Your task to perform on an android device: Go to battery settings Image 0: 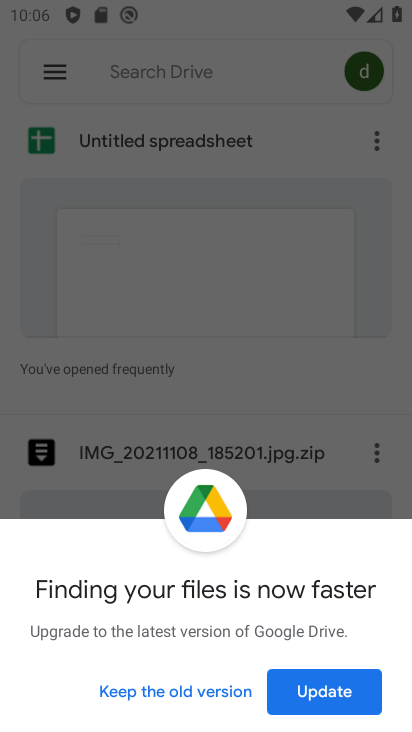
Step 0: press home button
Your task to perform on an android device: Go to battery settings Image 1: 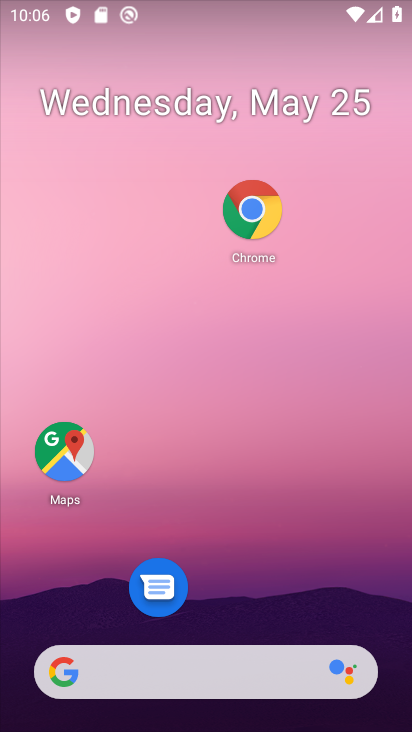
Step 1: drag from (226, 597) to (242, 354)
Your task to perform on an android device: Go to battery settings Image 2: 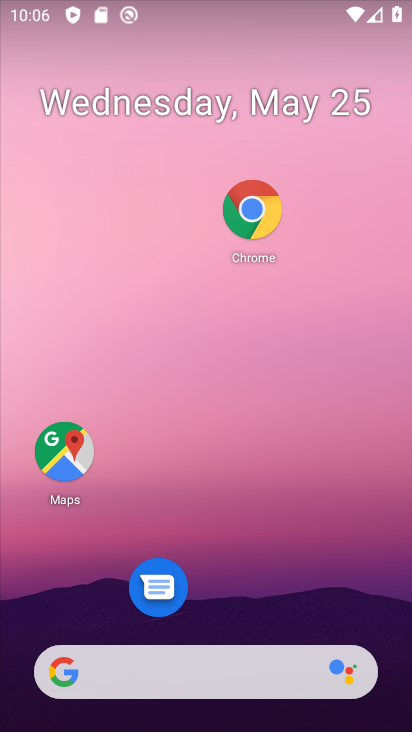
Step 2: drag from (249, 154) to (265, 91)
Your task to perform on an android device: Go to battery settings Image 3: 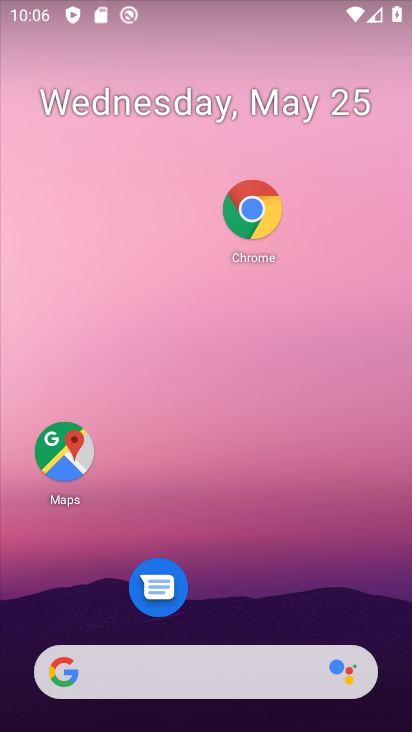
Step 3: drag from (238, 656) to (281, 88)
Your task to perform on an android device: Go to battery settings Image 4: 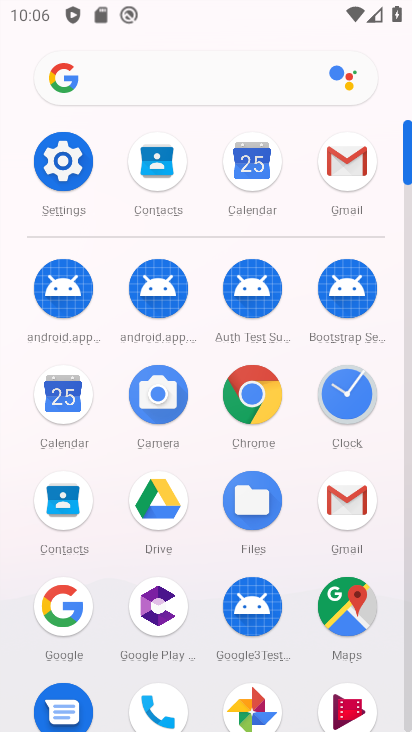
Step 4: click (62, 212)
Your task to perform on an android device: Go to battery settings Image 5: 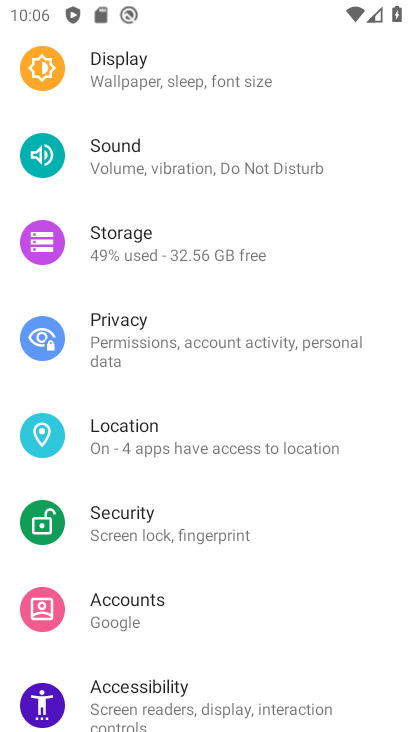
Step 5: click (134, 3)
Your task to perform on an android device: Go to battery settings Image 6: 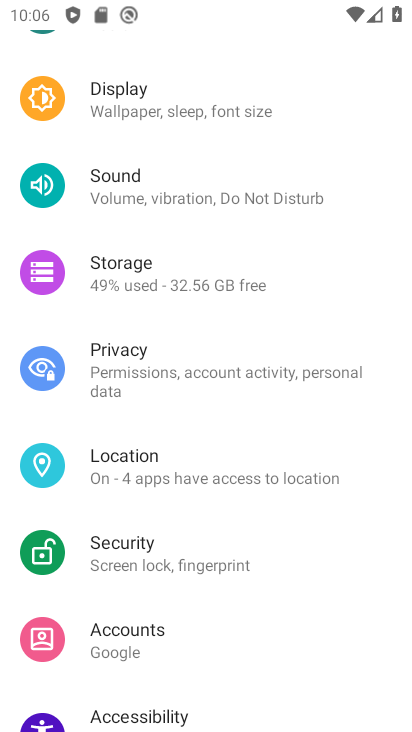
Step 6: drag from (147, 129) to (143, 728)
Your task to perform on an android device: Go to battery settings Image 7: 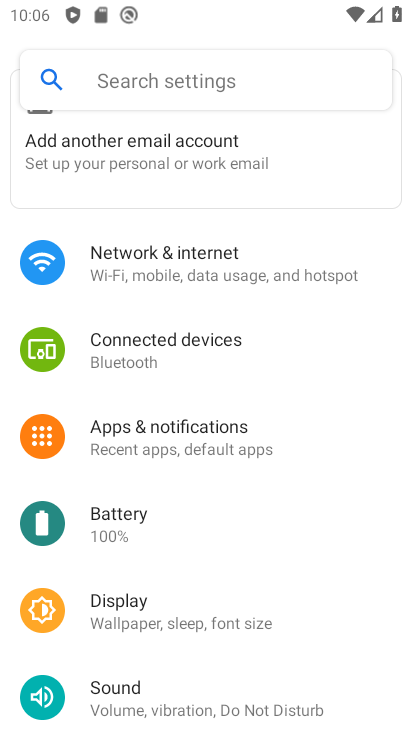
Step 7: click (135, 524)
Your task to perform on an android device: Go to battery settings Image 8: 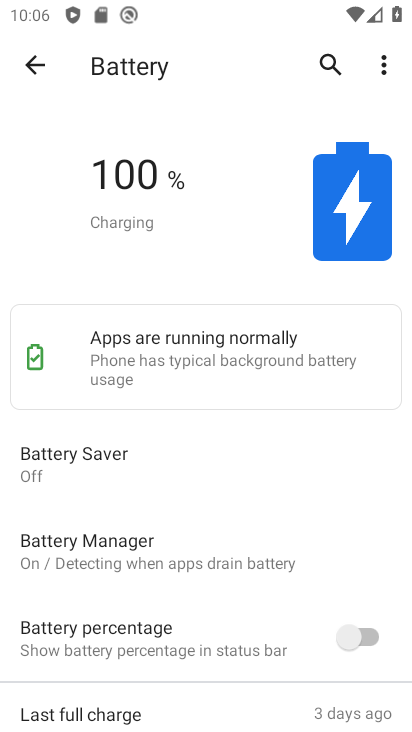
Step 8: task complete